Your task to perform on an android device: Open Google Chrome and open the bookmarks view Image 0: 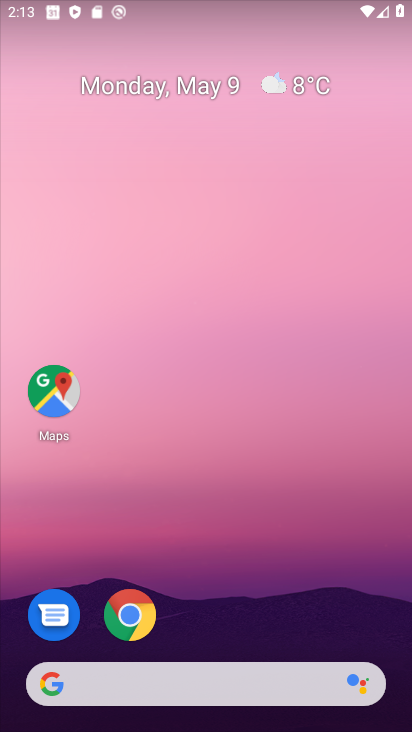
Step 0: click (144, 622)
Your task to perform on an android device: Open Google Chrome and open the bookmarks view Image 1: 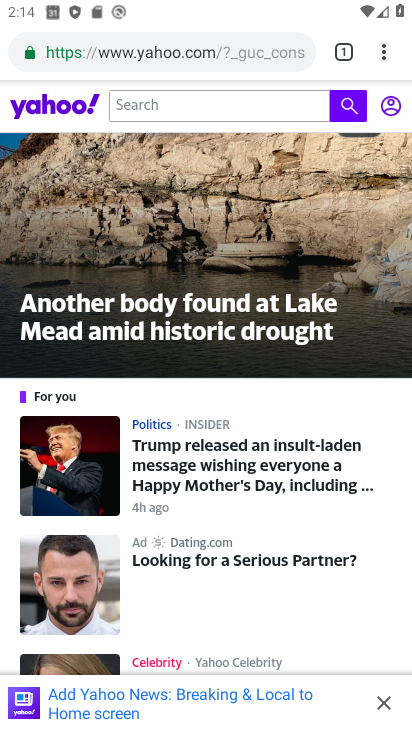
Step 1: click (389, 72)
Your task to perform on an android device: Open Google Chrome and open the bookmarks view Image 2: 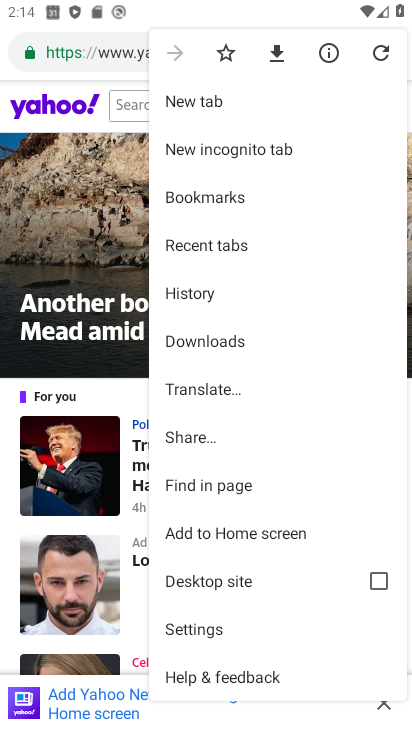
Step 2: click (299, 210)
Your task to perform on an android device: Open Google Chrome and open the bookmarks view Image 3: 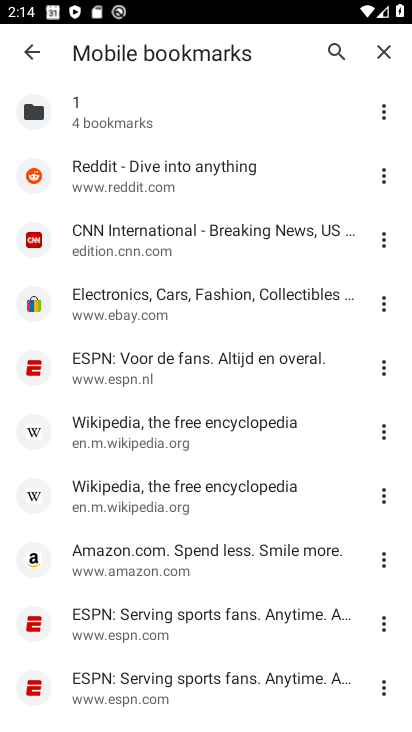
Step 3: task complete